Your task to perform on an android device: toggle data saver in the chrome app Image 0: 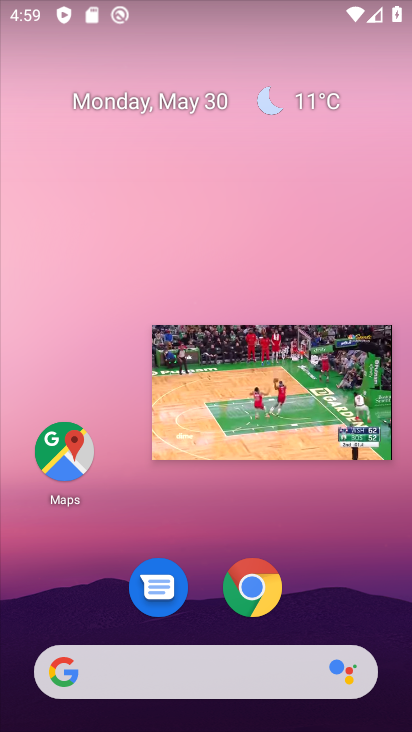
Step 0: click (362, 349)
Your task to perform on an android device: toggle data saver in the chrome app Image 1: 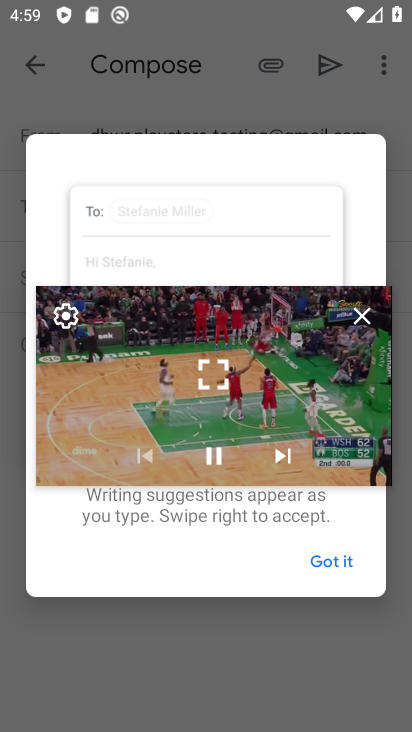
Step 1: click (358, 314)
Your task to perform on an android device: toggle data saver in the chrome app Image 2: 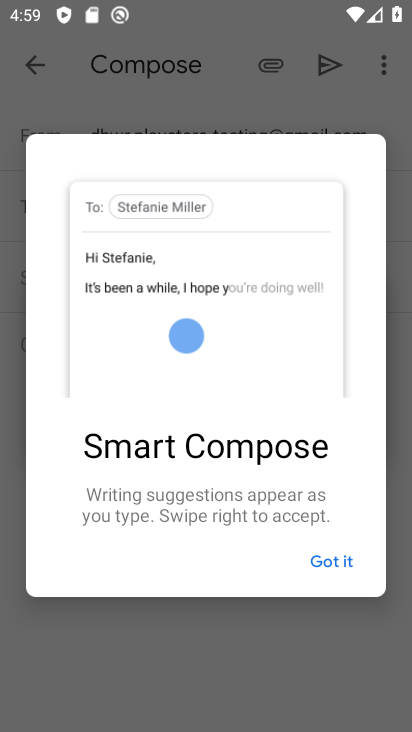
Step 2: press back button
Your task to perform on an android device: toggle data saver in the chrome app Image 3: 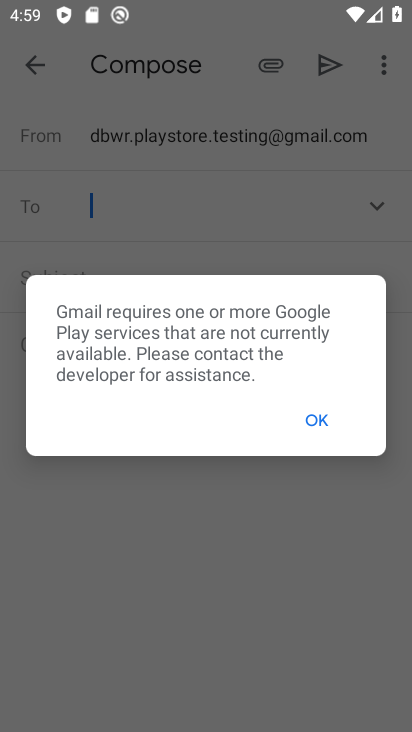
Step 3: press home button
Your task to perform on an android device: toggle data saver in the chrome app Image 4: 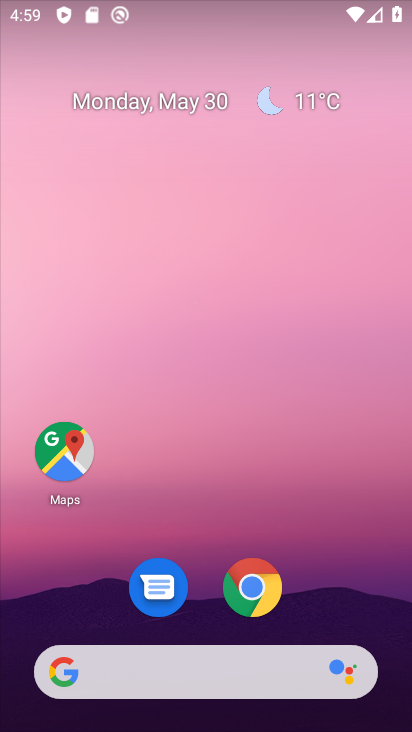
Step 4: drag from (327, 587) to (223, 18)
Your task to perform on an android device: toggle data saver in the chrome app Image 5: 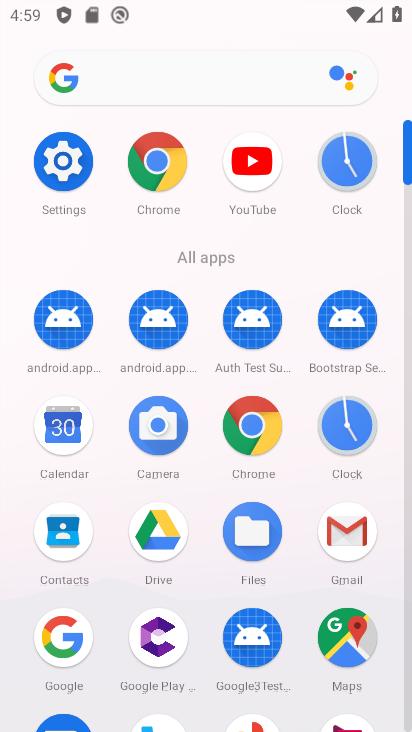
Step 5: drag from (19, 546) to (19, 156)
Your task to perform on an android device: toggle data saver in the chrome app Image 6: 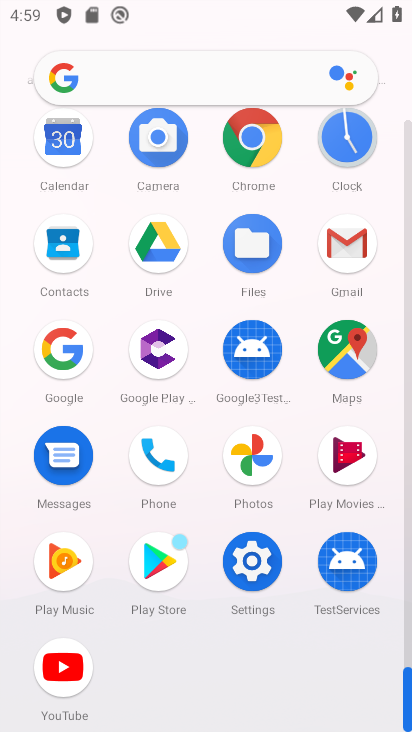
Step 6: click (255, 129)
Your task to perform on an android device: toggle data saver in the chrome app Image 7: 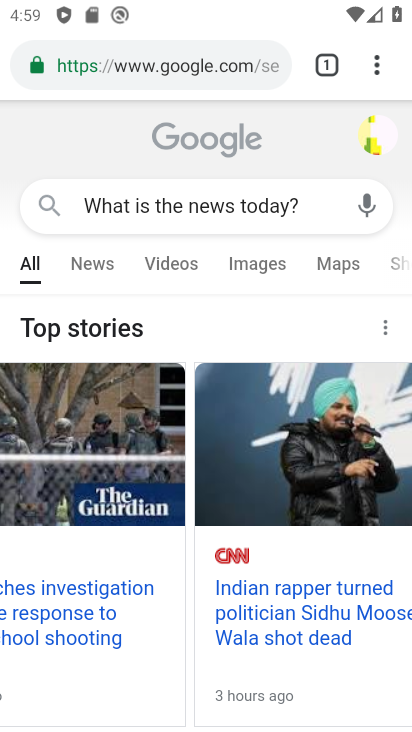
Step 7: drag from (379, 53) to (157, 630)
Your task to perform on an android device: toggle data saver in the chrome app Image 8: 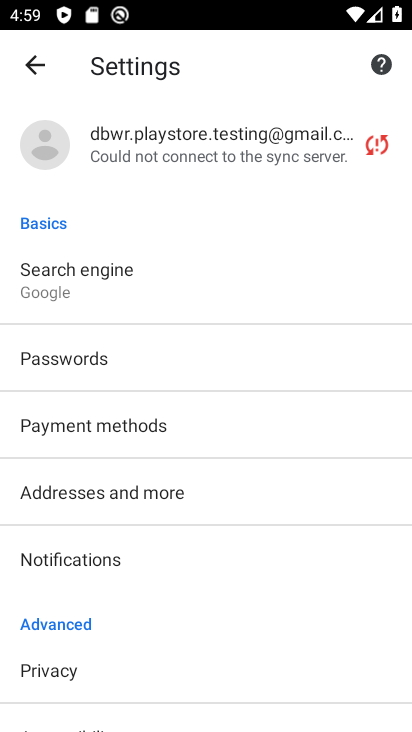
Step 8: drag from (207, 591) to (209, 206)
Your task to perform on an android device: toggle data saver in the chrome app Image 9: 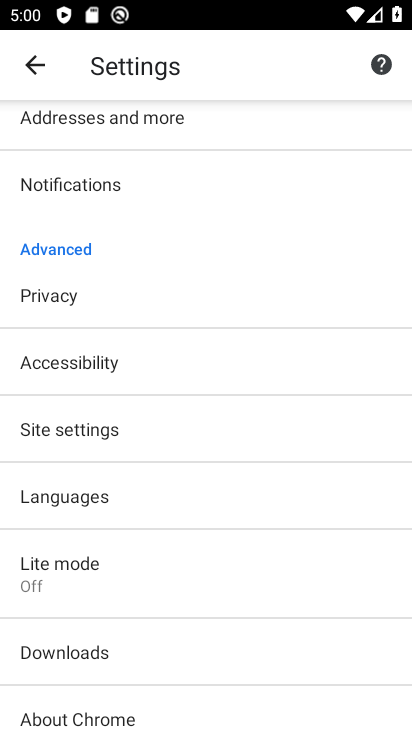
Step 9: click (100, 560)
Your task to perform on an android device: toggle data saver in the chrome app Image 10: 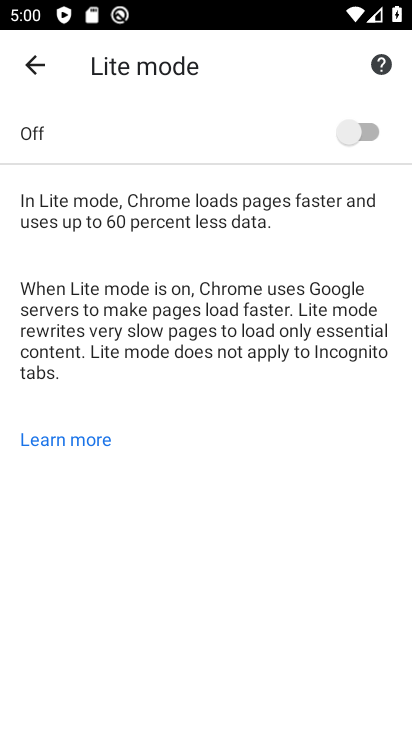
Step 10: task complete